Your task to perform on an android device: add a label to a message in the gmail app Image 0: 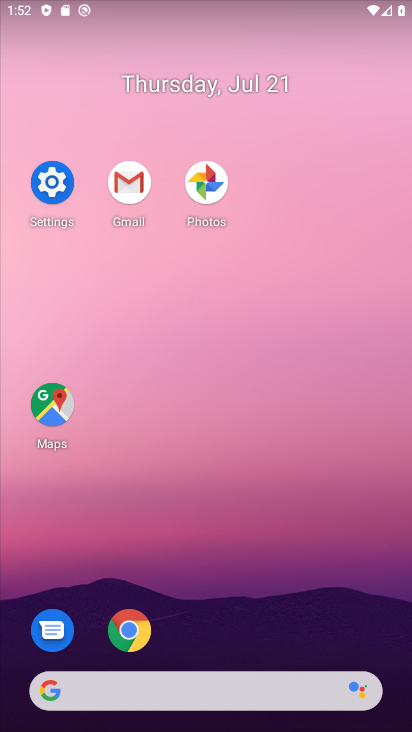
Step 0: click (129, 189)
Your task to perform on an android device: add a label to a message in the gmail app Image 1: 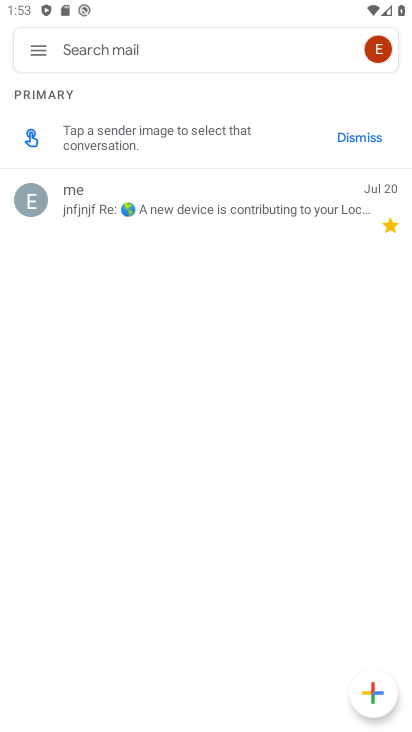
Step 1: click (26, 59)
Your task to perform on an android device: add a label to a message in the gmail app Image 2: 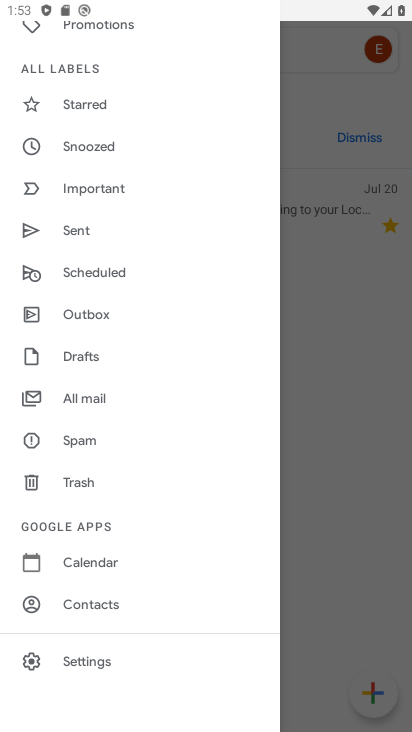
Step 2: click (328, 284)
Your task to perform on an android device: add a label to a message in the gmail app Image 3: 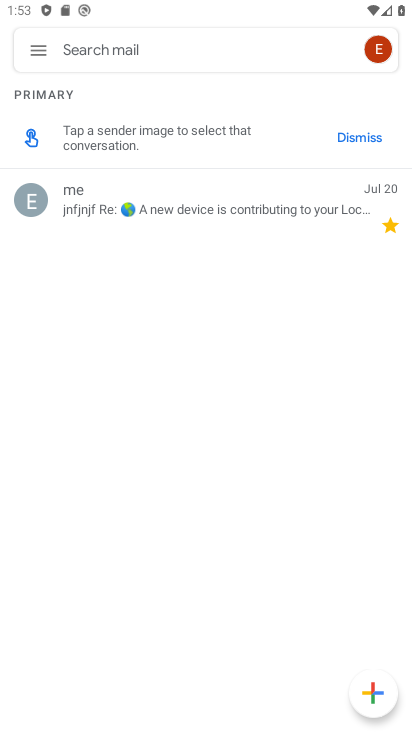
Step 3: click (300, 214)
Your task to perform on an android device: add a label to a message in the gmail app Image 4: 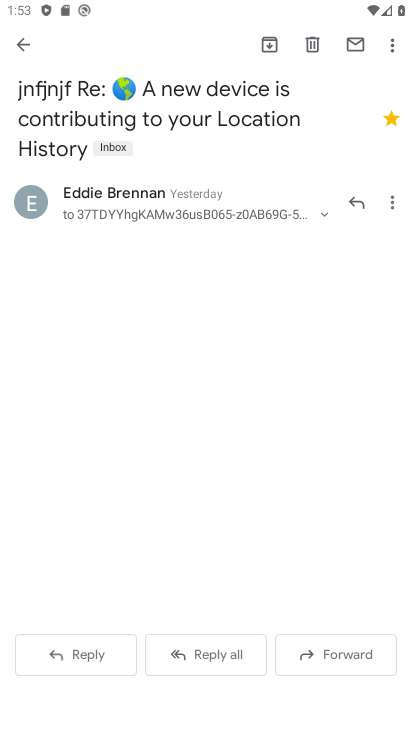
Step 4: task complete